Your task to perform on an android device: Open settings Image 0: 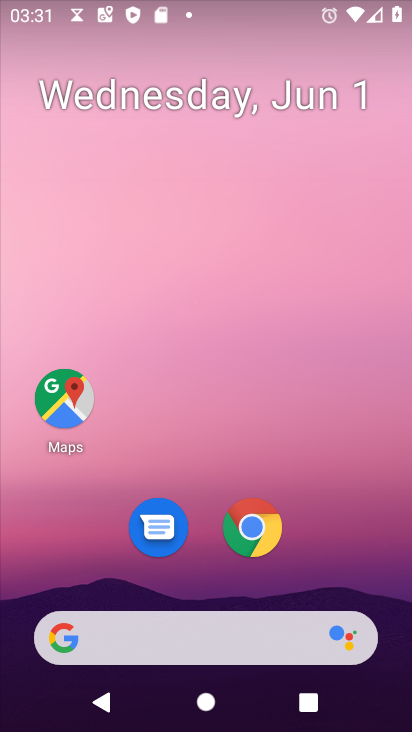
Step 0: drag from (330, 576) to (265, 144)
Your task to perform on an android device: Open settings Image 1: 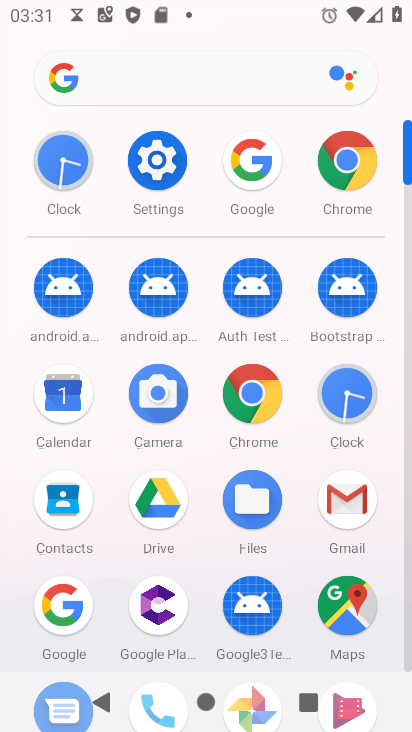
Step 1: click (158, 163)
Your task to perform on an android device: Open settings Image 2: 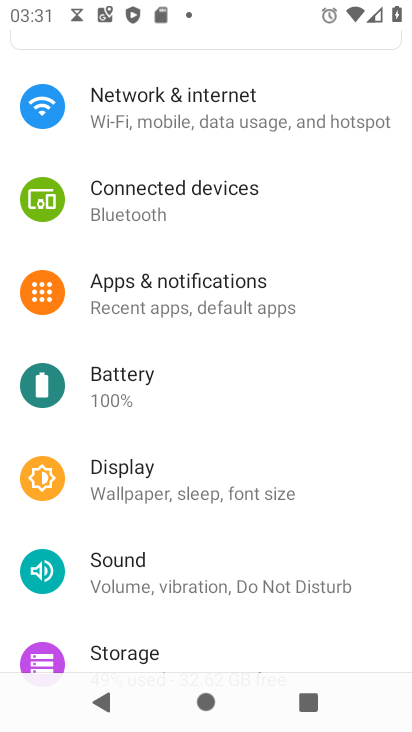
Step 2: task complete